Your task to perform on an android device: Do I have any events tomorrow? Image 0: 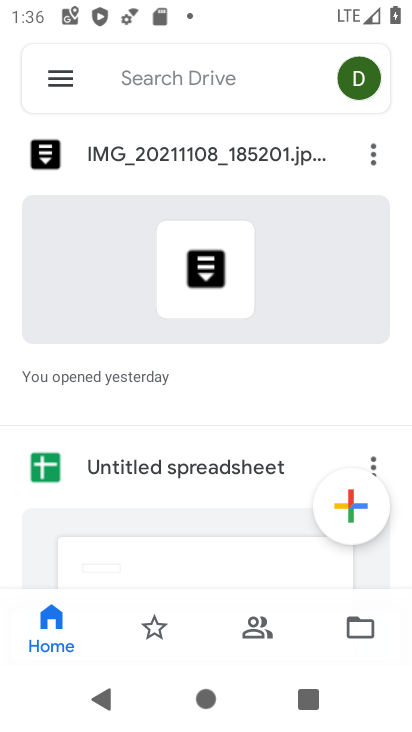
Step 0: press home button
Your task to perform on an android device: Do I have any events tomorrow? Image 1: 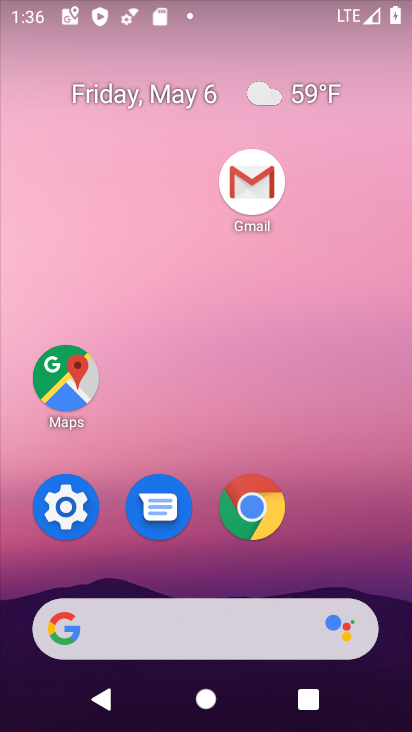
Step 1: drag from (356, 535) to (268, 60)
Your task to perform on an android device: Do I have any events tomorrow? Image 2: 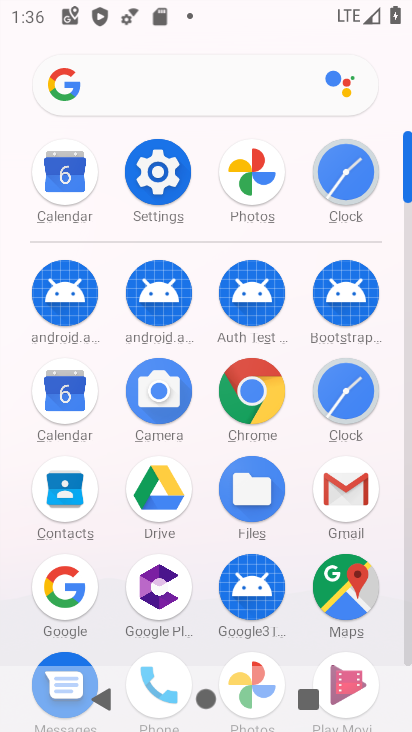
Step 2: click (65, 400)
Your task to perform on an android device: Do I have any events tomorrow? Image 3: 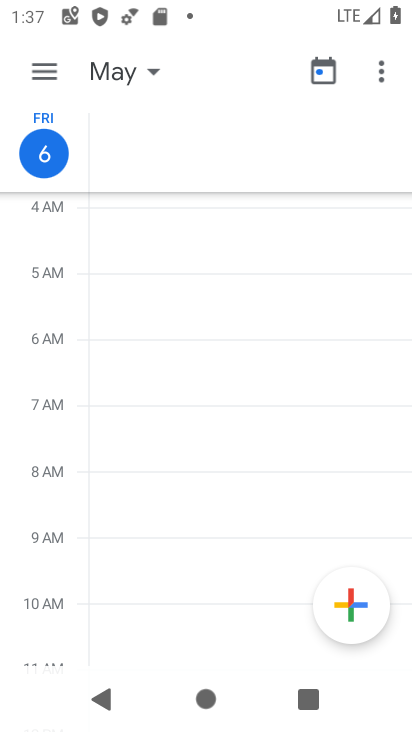
Step 3: click (148, 73)
Your task to perform on an android device: Do I have any events tomorrow? Image 4: 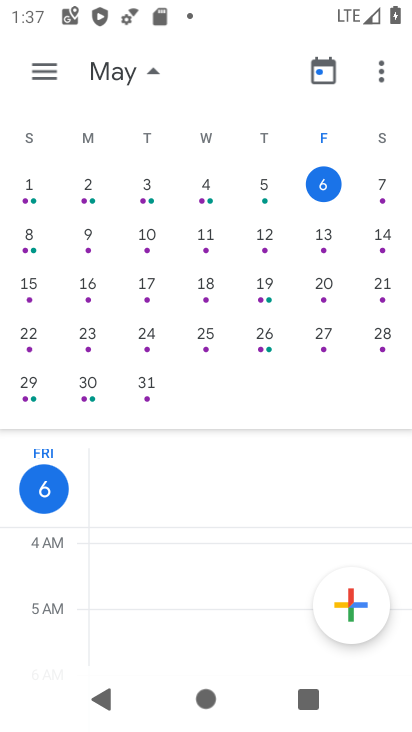
Step 4: click (380, 174)
Your task to perform on an android device: Do I have any events tomorrow? Image 5: 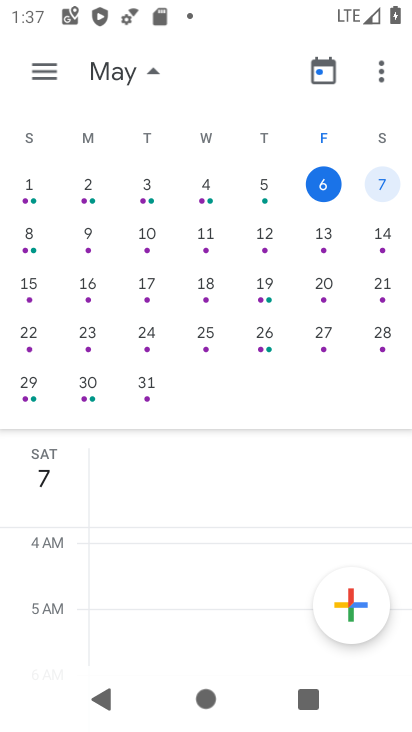
Step 5: task complete